Your task to perform on an android device: Go to CNN.com Image 0: 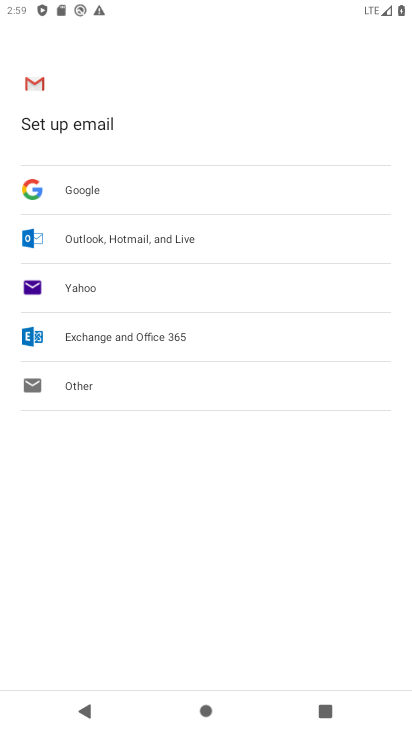
Step 0: press home button
Your task to perform on an android device: Go to CNN.com Image 1: 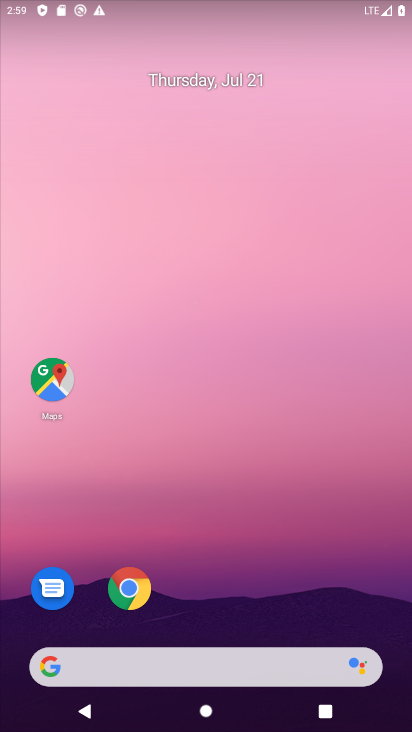
Step 1: click (134, 580)
Your task to perform on an android device: Go to CNN.com Image 2: 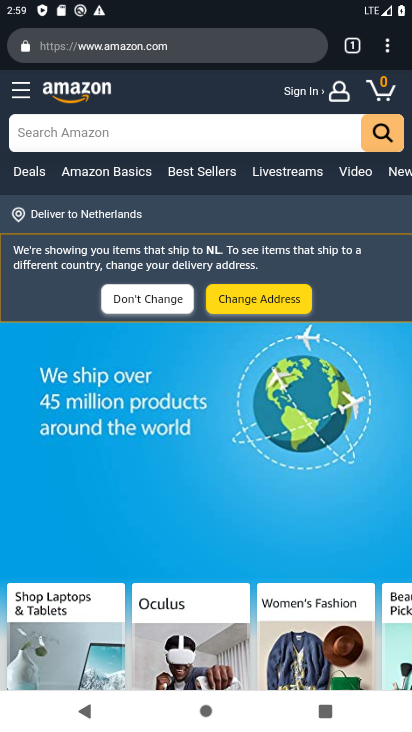
Step 2: click (124, 55)
Your task to perform on an android device: Go to CNN.com Image 3: 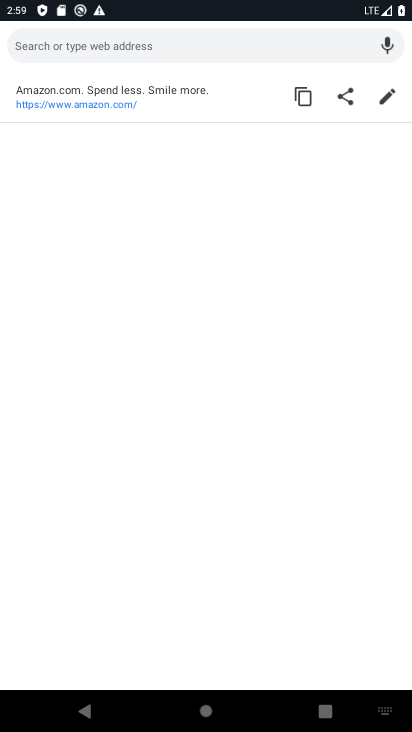
Step 3: type "CNN.com"
Your task to perform on an android device: Go to CNN.com Image 4: 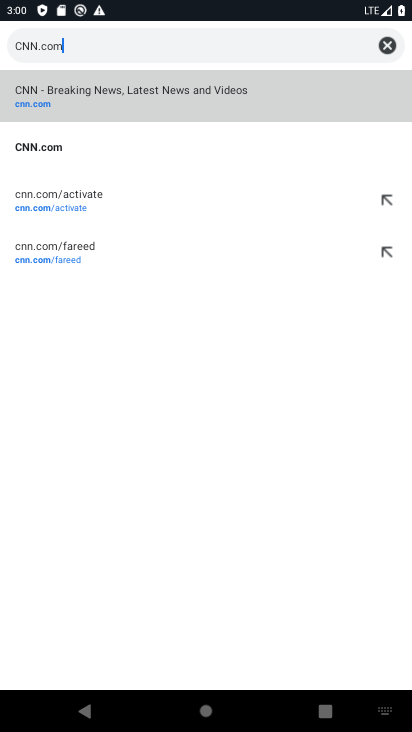
Step 4: click (169, 79)
Your task to perform on an android device: Go to CNN.com Image 5: 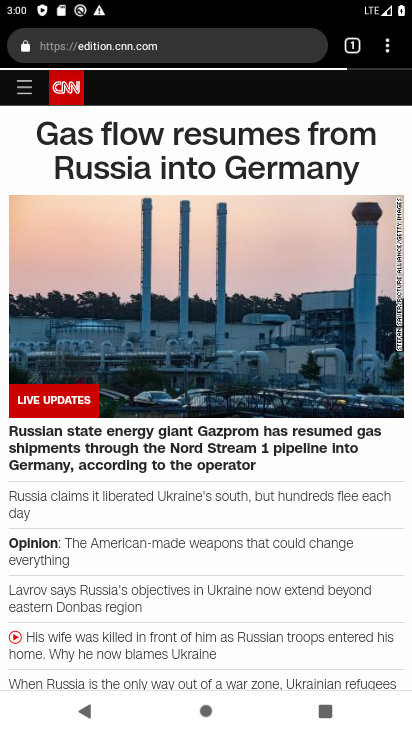
Step 5: task complete